Your task to perform on an android device: move a message to another label in the gmail app Image 0: 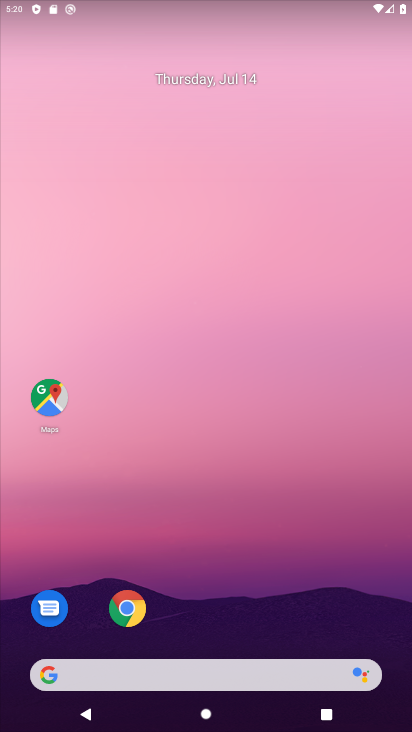
Step 0: drag from (194, 671) to (235, 157)
Your task to perform on an android device: move a message to another label in the gmail app Image 1: 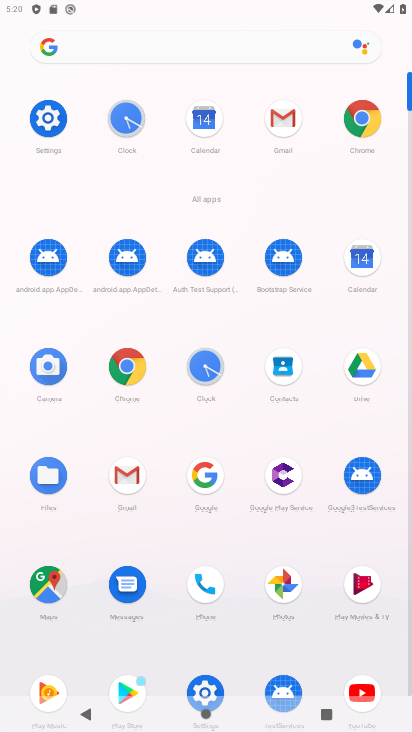
Step 1: click (281, 120)
Your task to perform on an android device: move a message to another label in the gmail app Image 2: 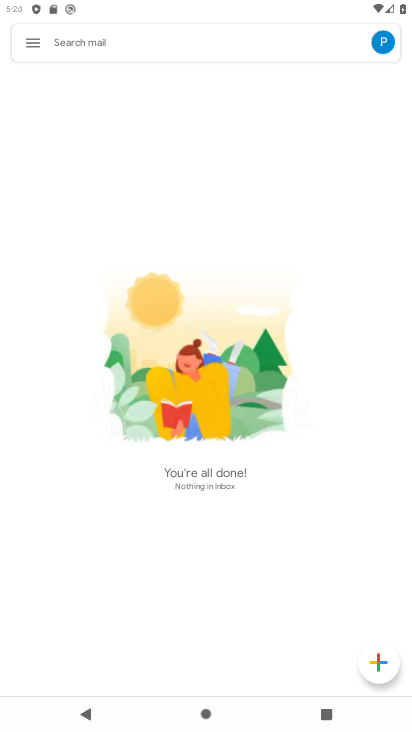
Step 2: click (31, 39)
Your task to perform on an android device: move a message to another label in the gmail app Image 3: 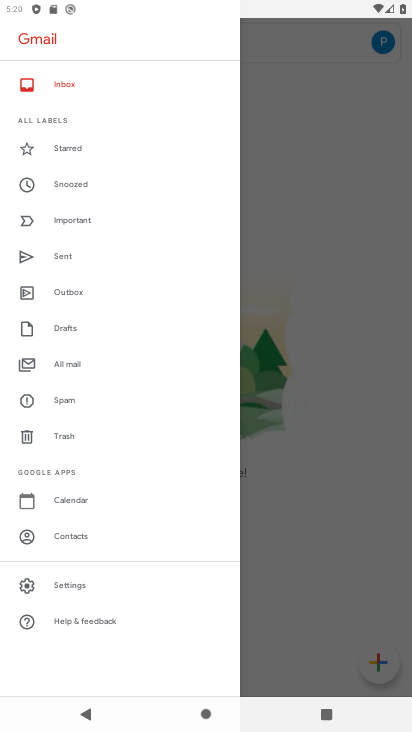
Step 3: click (61, 150)
Your task to perform on an android device: move a message to another label in the gmail app Image 4: 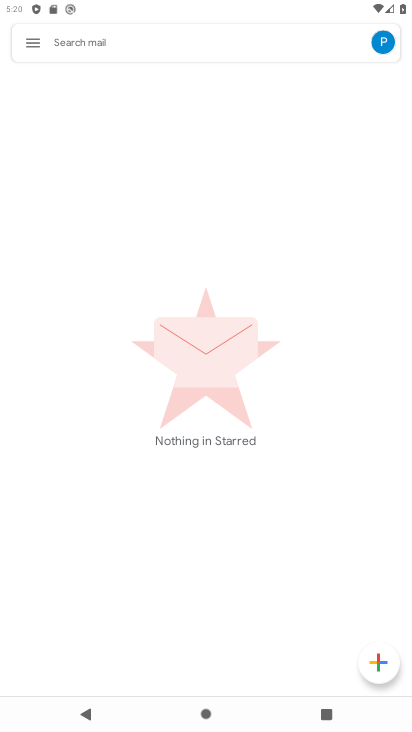
Step 4: click (37, 41)
Your task to perform on an android device: move a message to another label in the gmail app Image 5: 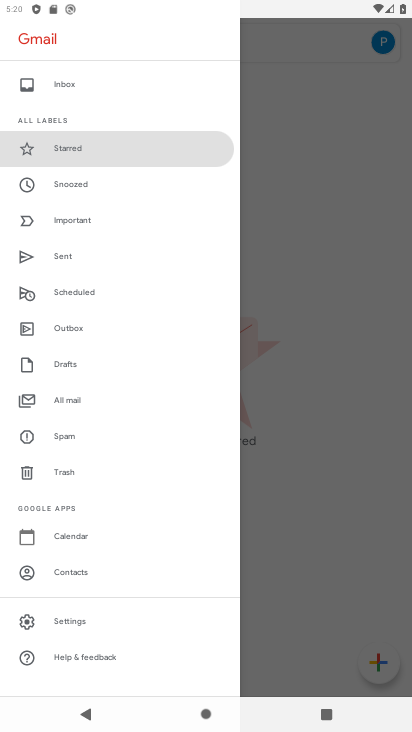
Step 5: click (70, 184)
Your task to perform on an android device: move a message to another label in the gmail app Image 6: 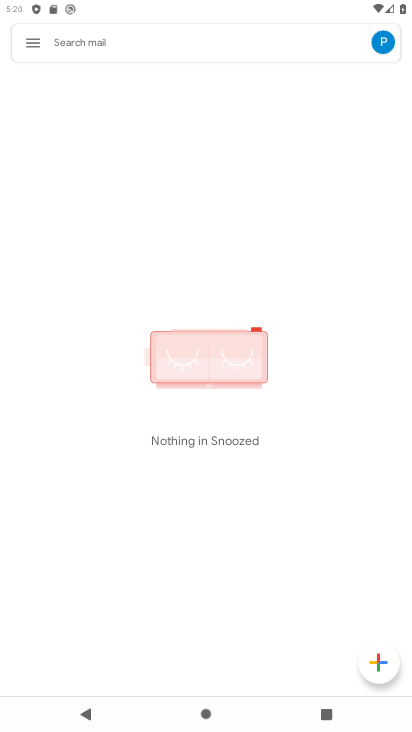
Step 6: click (34, 45)
Your task to perform on an android device: move a message to another label in the gmail app Image 7: 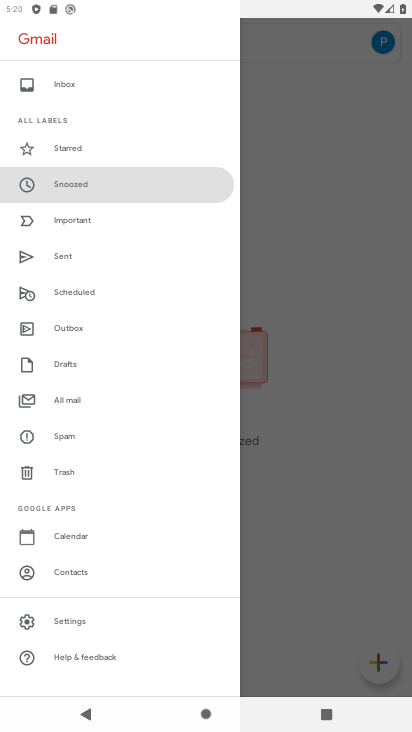
Step 7: click (64, 218)
Your task to perform on an android device: move a message to another label in the gmail app Image 8: 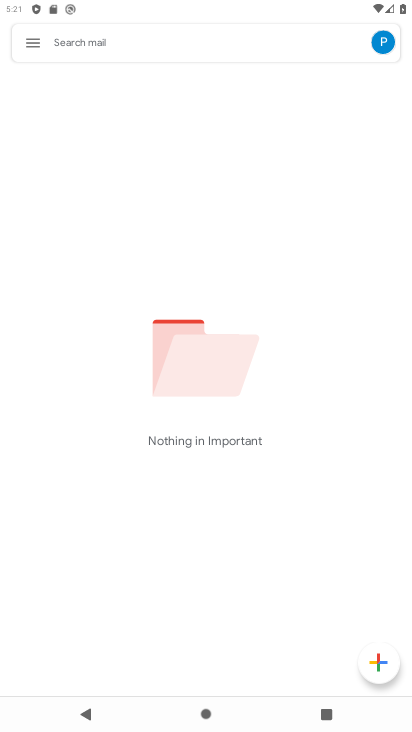
Step 8: click (29, 40)
Your task to perform on an android device: move a message to another label in the gmail app Image 9: 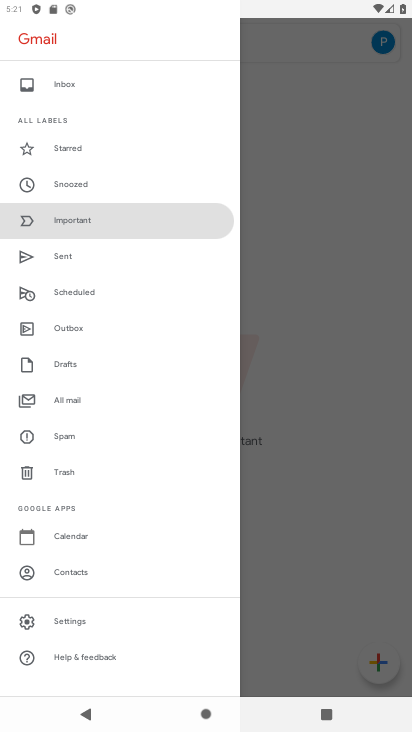
Step 9: click (66, 255)
Your task to perform on an android device: move a message to another label in the gmail app Image 10: 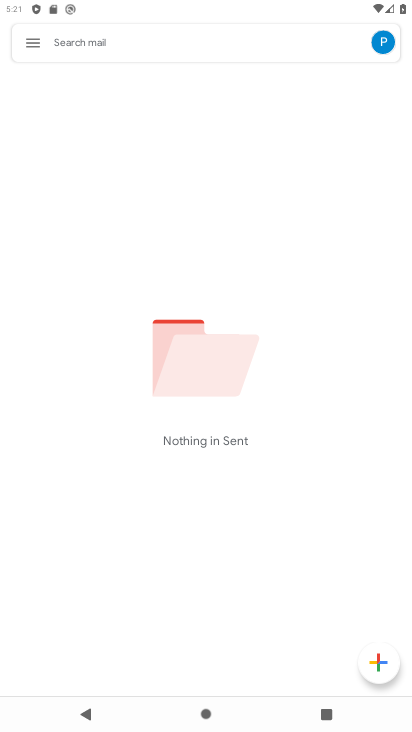
Step 10: click (28, 47)
Your task to perform on an android device: move a message to another label in the gmail app Image 11: 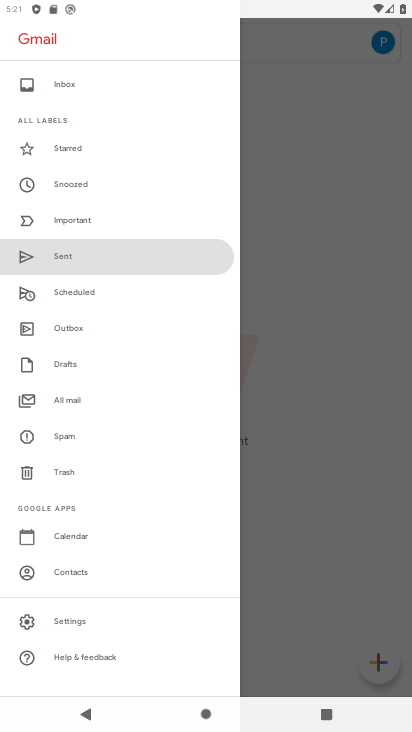
Step 11: click (45, 291)
Your task to perform on an android device: move a message to another label in the gmail app Image 12: 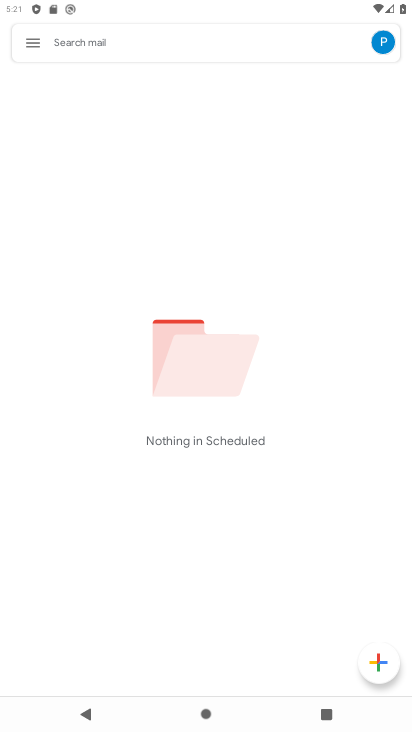
Step 12: click (34, 43)
Your task to perform on an android device: move a message to another label in the gmail app Image 13: 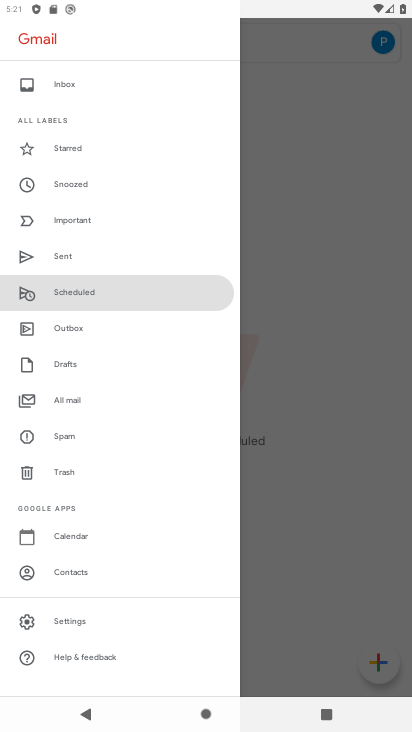
Step 13: click (60, 328)
Your task to perform on an android device: move a message to another label in the gmail app Image 14: 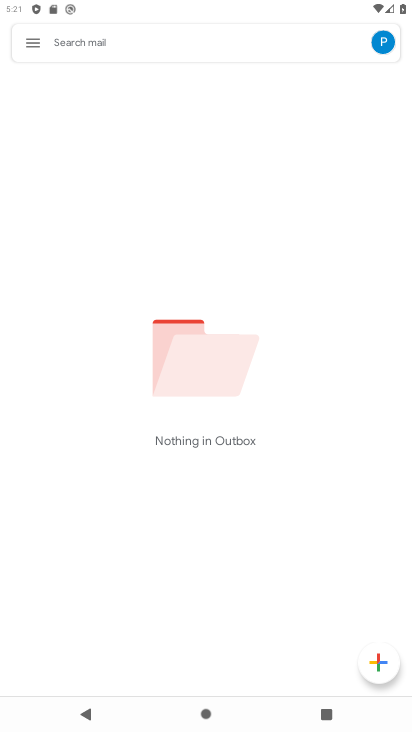
Step 14: click (26, 42)
Your task to perform on an android device: move a message to another label in the gmail app Image 15: 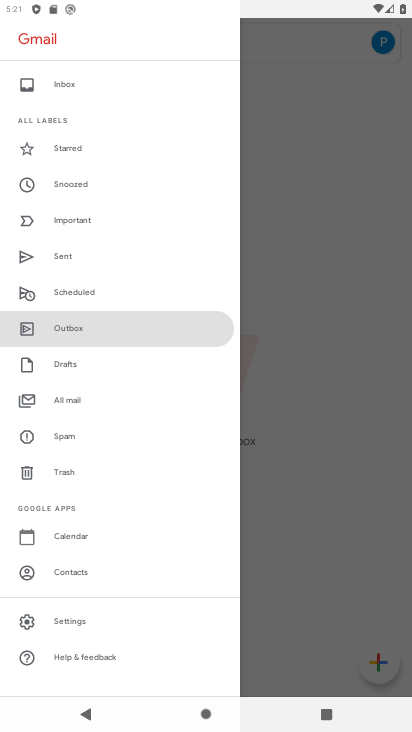
Step 15: click (51, 370)
Your task to perform on an android device: move a message to another label in the gmail app Image 16: 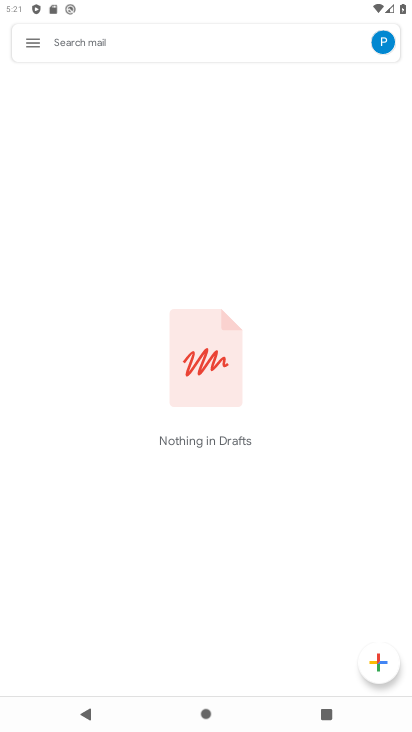
Step 16: click (34, 42)
Your task to perform on an android device: move a message to another label in the gmail app Image 17: 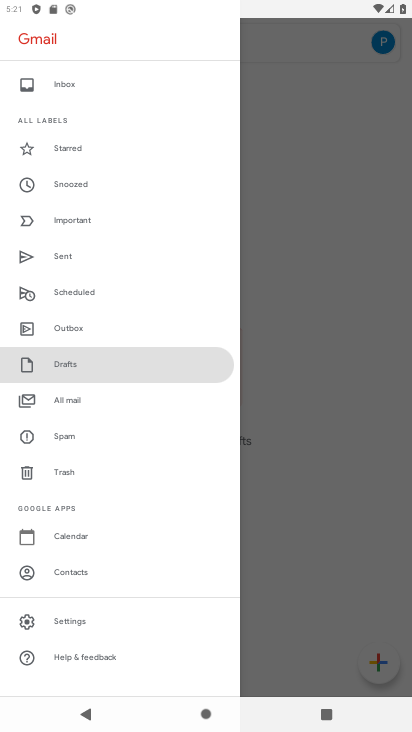
Step 17: click (53, 401)
Your task to perform on an android device: move a message to another label in the gmail app Image 18: 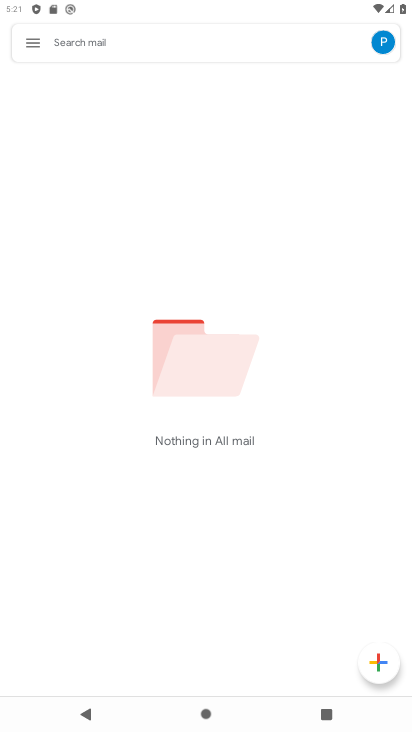
Step 18: click (28, 44)
Your task to perform on an android device: move a message to another label in the gmail app Image 19: 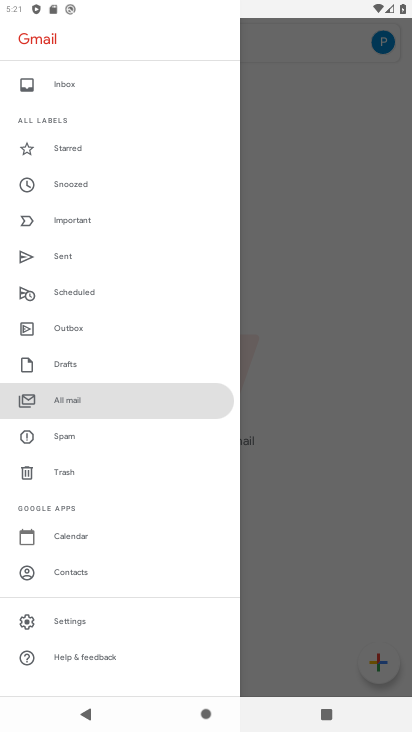
Step 19: click (34, 442)
Your task to perform on an android device: move a message to another label in the gmail app Image 20: 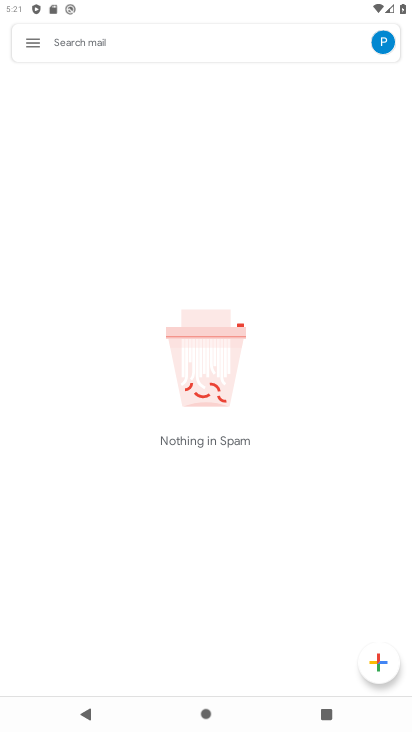
Step 20: click (35, 50)
Your task to perform on an android device: move a message to another label in the gmail app Image 21: 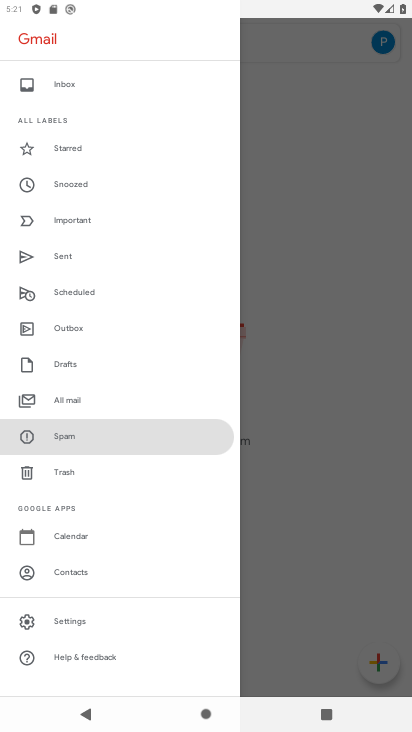
Step 21: click (44, 470)
Your task to perform on an android device: move a message to another label in the gmail app Image 22: 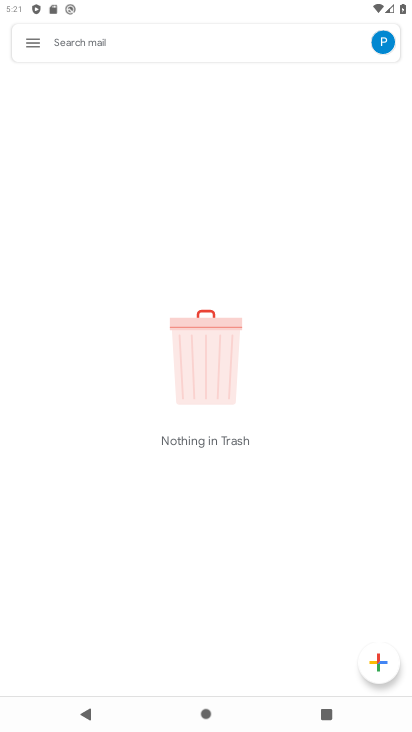
Step 22: click (32, 37)
Your task to perform on an android device: move a message to another label in the gmail app Image 23: 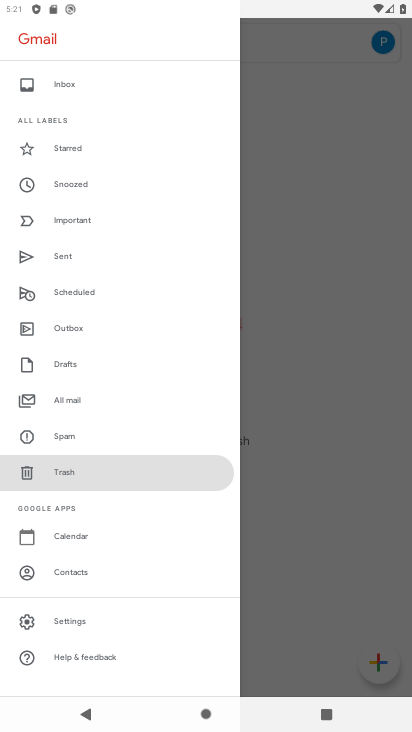
Step 23: task complete